Your task to perform on an android device: turn off notifications in google photos Image 0: 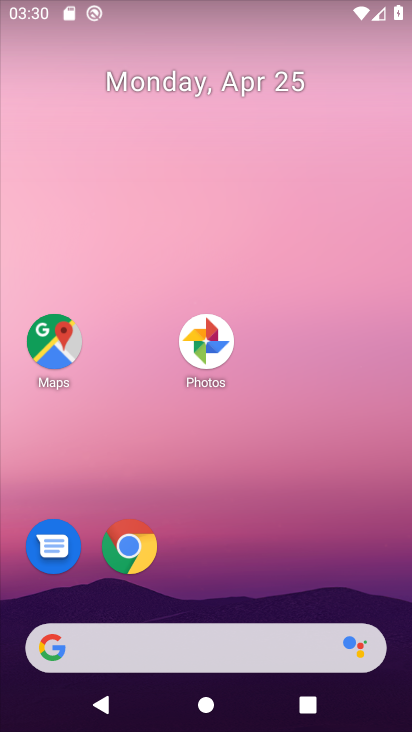
Step 0: drag from (309, 549) to (314, 296)
Your task to perform on an android device: turn off notifications in google photos Image 1: 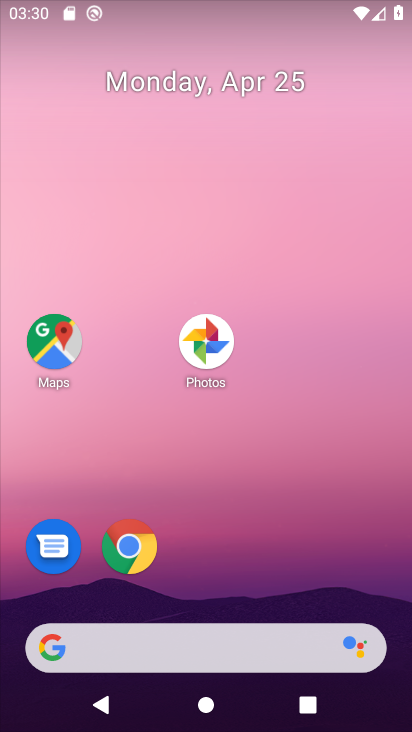
Step 1: drag from (246, 460) to (301, 217)
Your task to perform on an android device: turn off notifications in google photos Image 2: 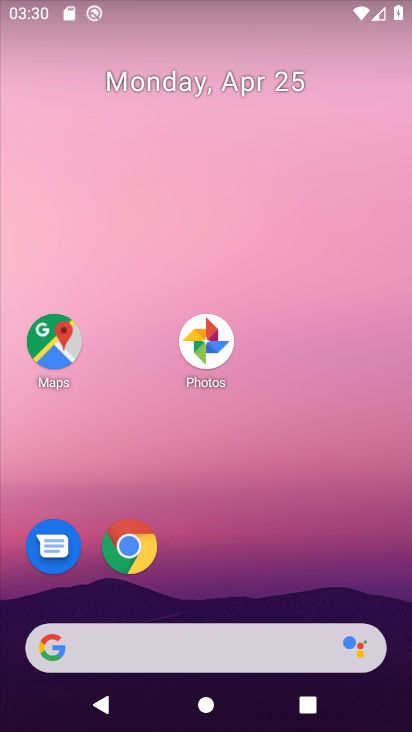
Step 2: drag from (272, 520) to (295, 235)
Your task to perform on an android device: turn off notifications in google photos Image 3: 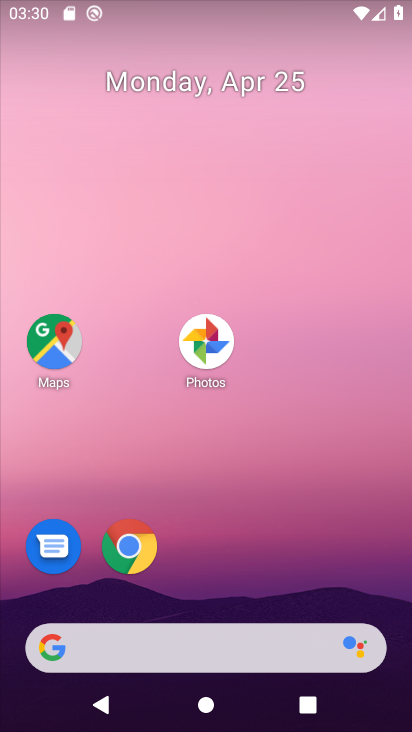
Step 3: drag from (277, 525) to (321, 150)
Your task to perform on an android device: turn off notifications in google photos Image 4: 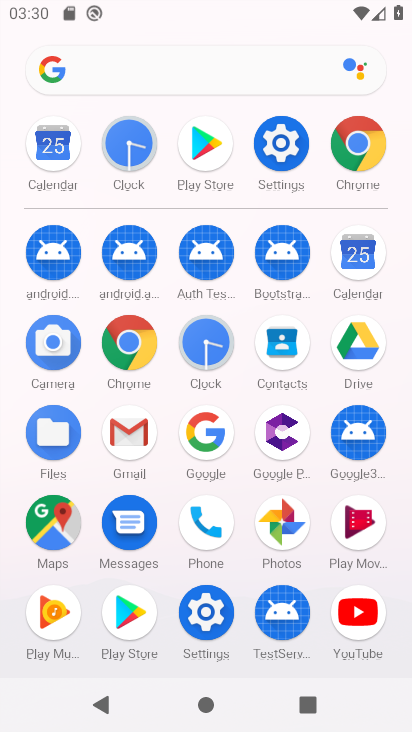
Step 4: click (282, 514)
Your task to perform on an android device: turn off notifications in google photos Image 5: 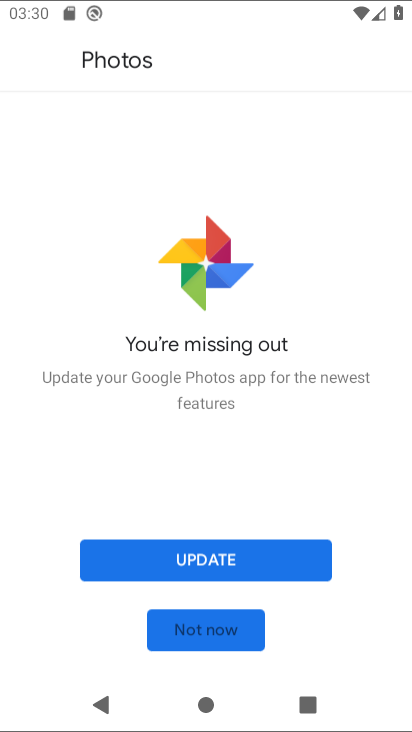
Step 5: click (52, 55)
Your task to perform on an android device: turn off notifications in google photos Image 6: 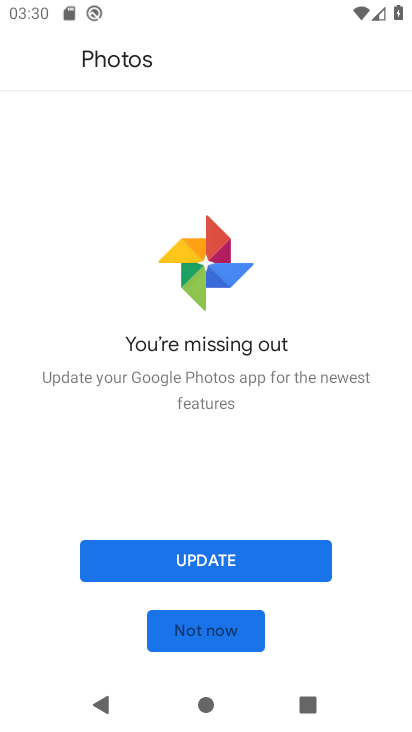
Step 6: click (223, 631)
Your task to perform on an android device: turn off notifications in google photos Image 7: 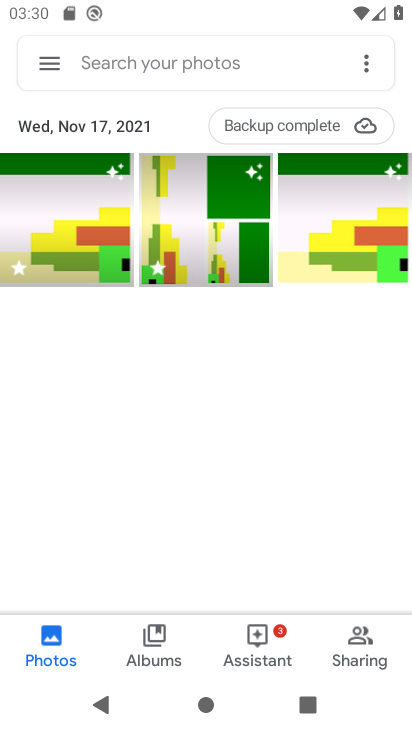
Step 7: click (28, 63)
Your task to perform on an android device: turn off notifications in google photos Image 8: 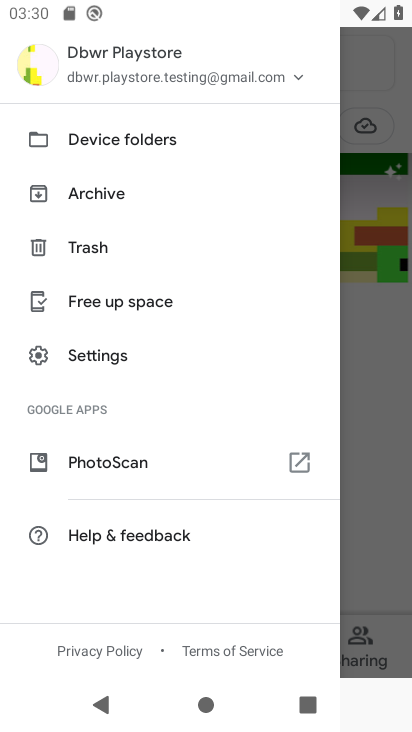
Step 8: click (127, 350)
Your task to perform on an android device: turn off notifications in google photos Image 9: 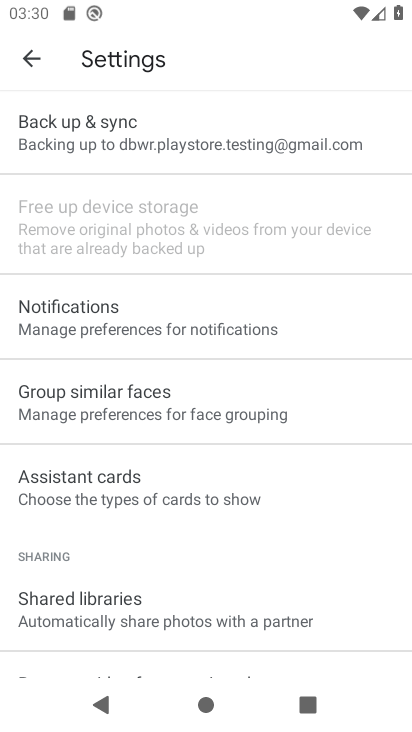
Step 9: click (163, 324)
Your task to perform on an android device: turn off notifications in google photos Image 10: 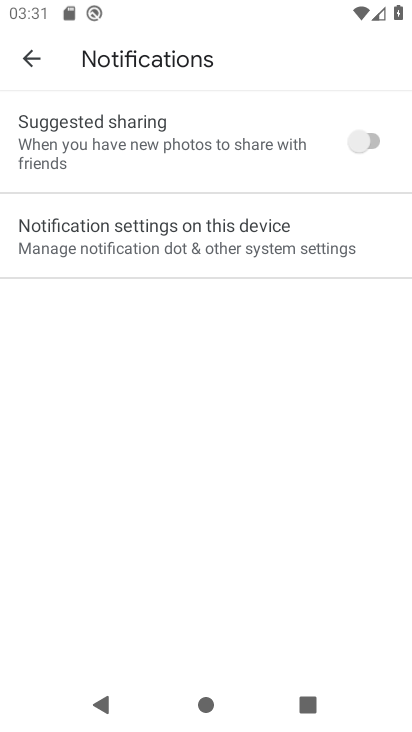
Step 10: click (203, 226)
Your task to perform on an android device: turn off notifications in google photos Image 11: 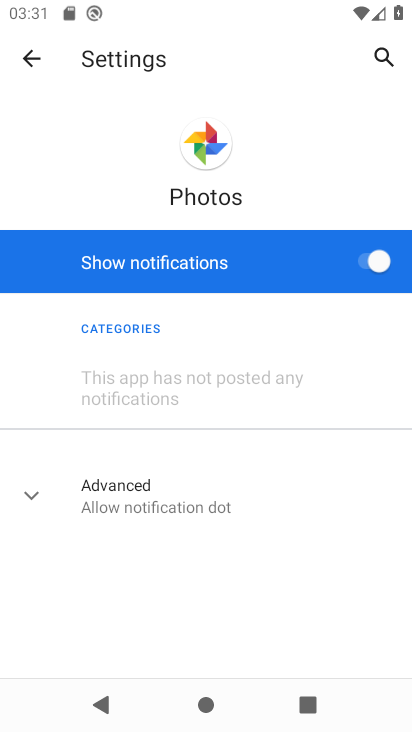
Step 11: click (374, 256)
Your task to perform on an android device: turn off notifications in google photos Image 12: 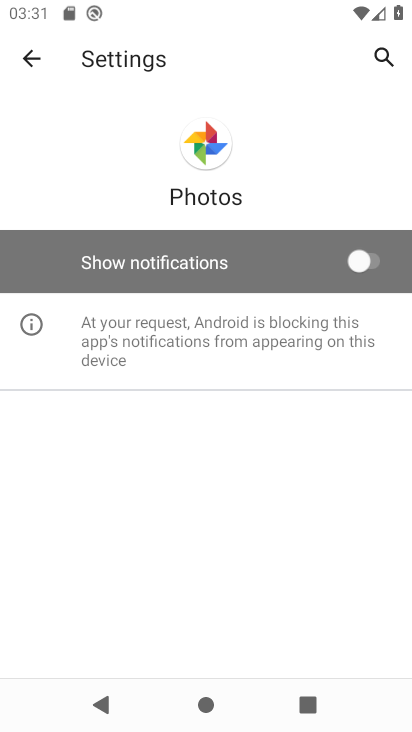
Step 12: task complete